Your task to perform on an android device: Is it going to rain tomorrow? Image 0: 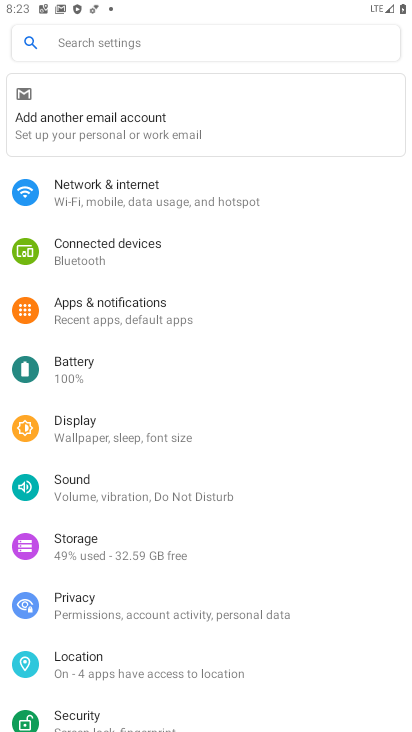
Step 0: press home button
Your task to perform on an android device: Is it going to rain tomorrow? Image 1: 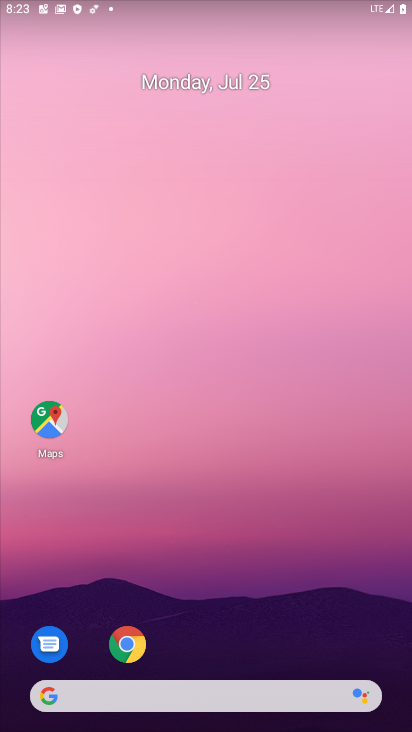
Step 1: drag from (309, 623) to (328, 42)
Your task to perform on an android device: Is it going to rain tomorrow? Image 2: 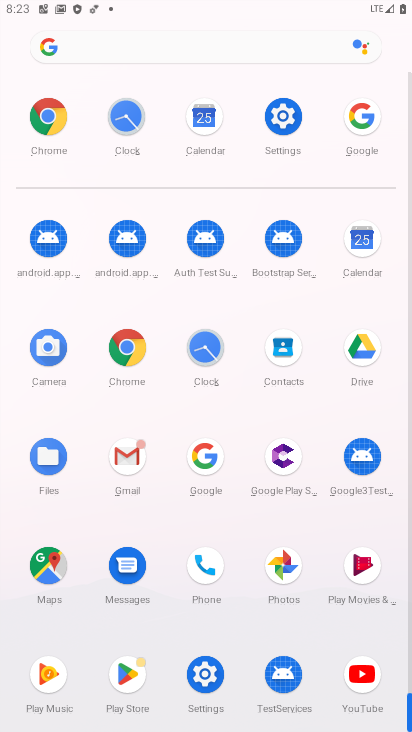
Step 2: click (135, 359)
Your task to perform on an android device: Is it going to rain tomorrow? Image 3: 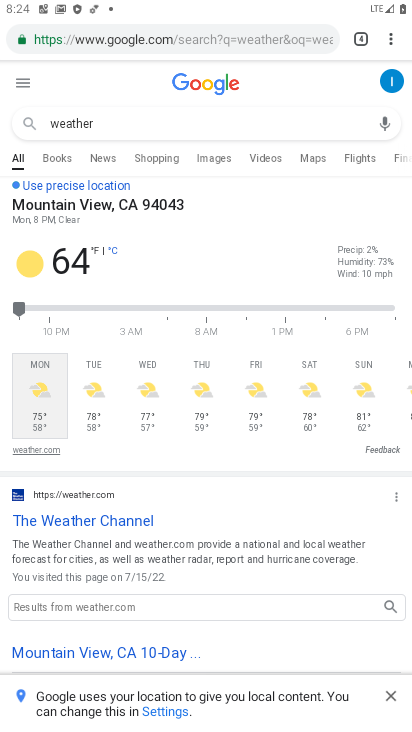
Step 3: click (97, 400)
Your task to perform on an android device: Is it going to rain tomorrow? Image 4: 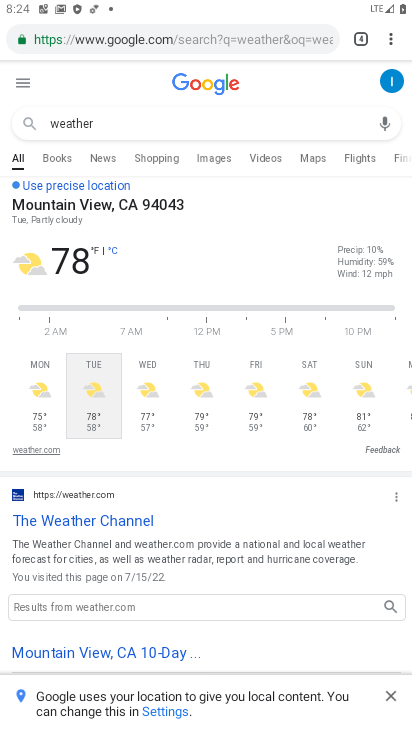
Step 4: task complete